Your task to perform on an android device: Search for Italian restaurants on Maps Image 0: 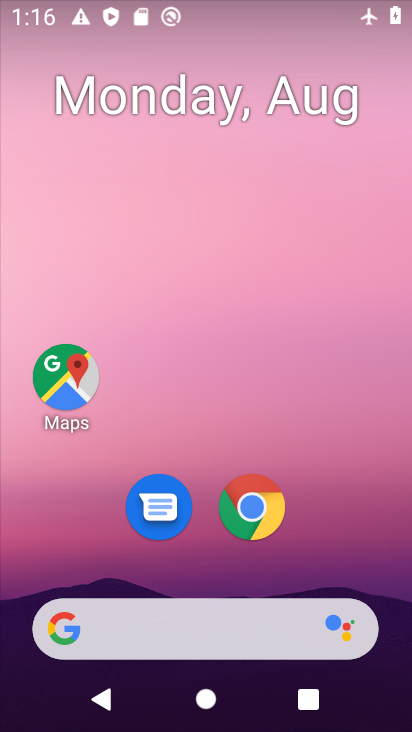
Step 0: press home button
Your task to perform on an android device: Search for Italian restaurants on Maps Image 1: 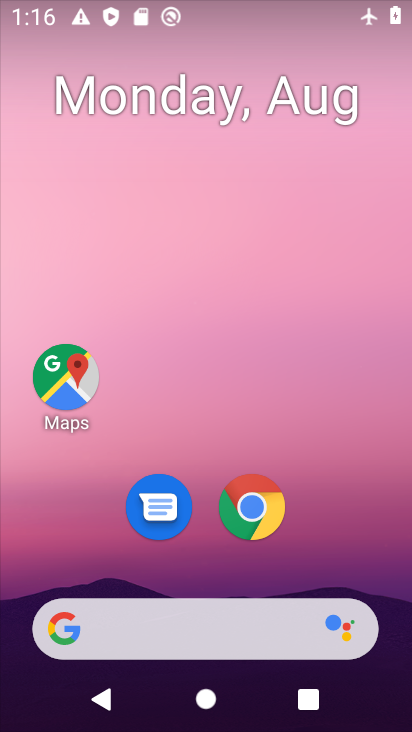
Step 1: click (61, 370)
Your task to perform on an android device: Search for Italian restaurants on Maps Image 2: 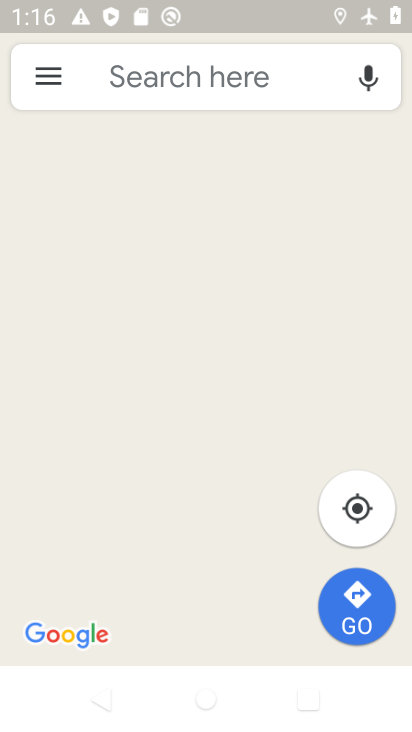
Step 2: click (165, 92)
Your task to perform on an android device: Search for Italian restaurants on Maps Image 3: 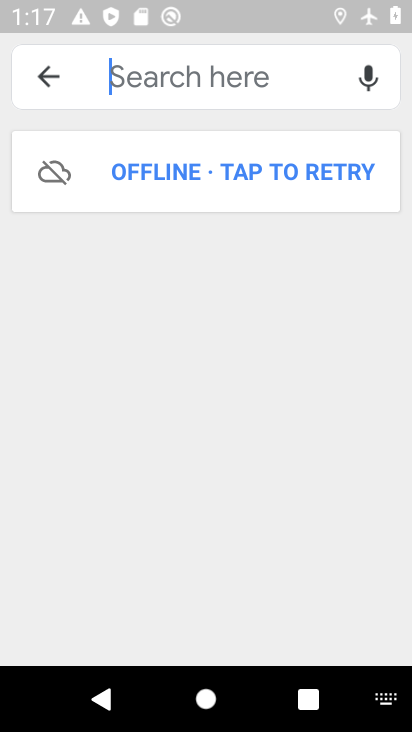
Step 3: type "Italian restaurants"
Your task to perform on an android device: Search for Italian restaurants on Maps Image 4: 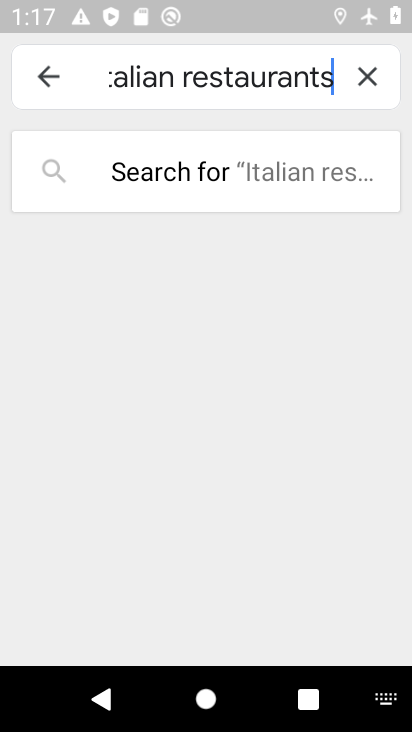
Step 4: task complete